Your task to perform on an android device: Open settings on Google Maps Image 0: 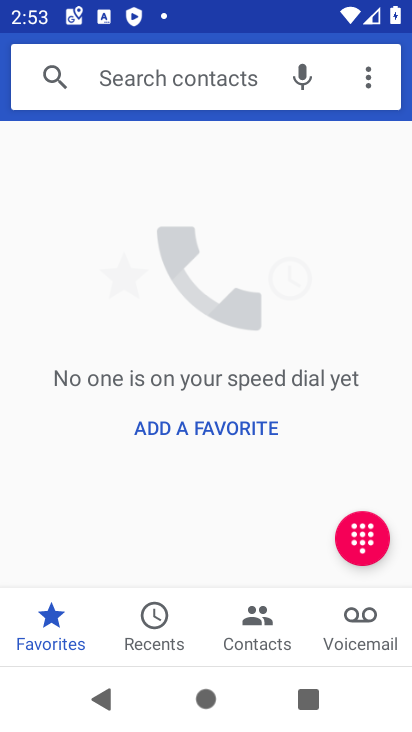
Step 0: press home button
Your task to perform on an android device: Open settings on Google Maps Image 1: 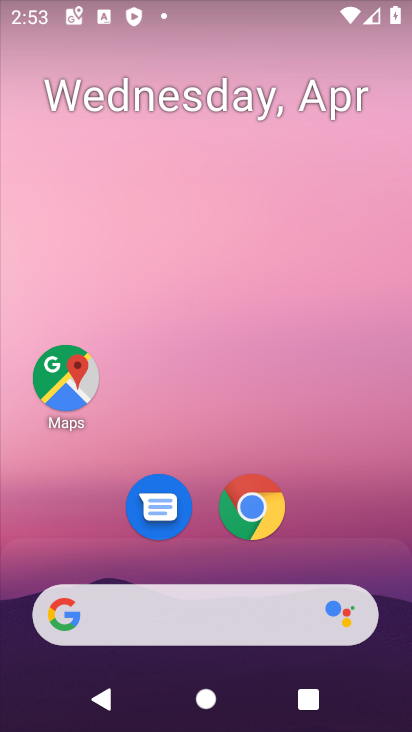
Step 1: click (68, 389)
Your task to perform on an android device: Open settings on Google Maps Image 2: 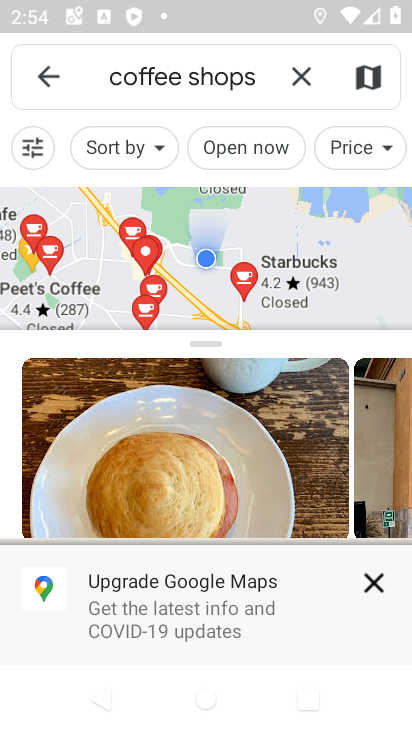
Step 2: click (45, 70)
Your task to perform on an android device: Open settings on Google Maps Image 3: 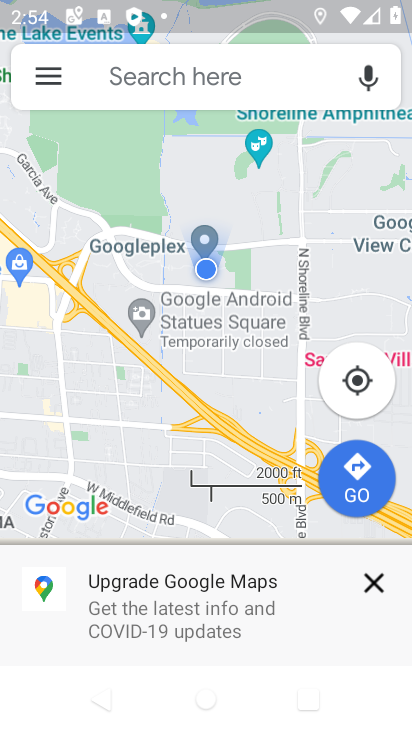
Step 3: click (44, 69)
Your task to perform on an android device: Open settings on Google Maps Image 4: 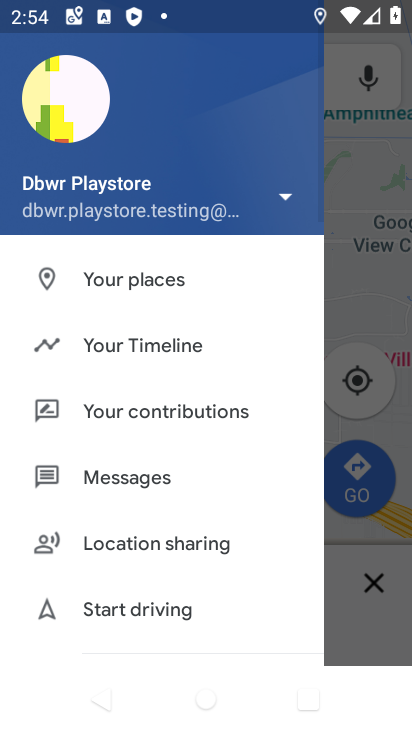
Step 4: drag from (206, 509) to (198, 139)
Your task to perform on an android device: Open settings on Google Maps Image 5: 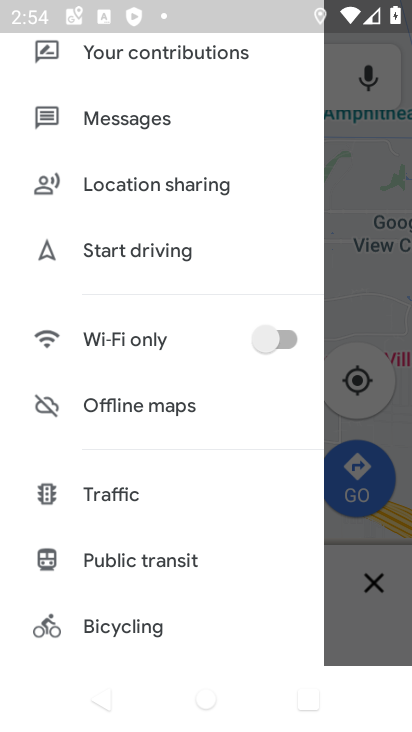
Step 5: drag from (210, 600) to (176, 208)
Your task to perform on an android device: Open settings on Google Maps Image 6: 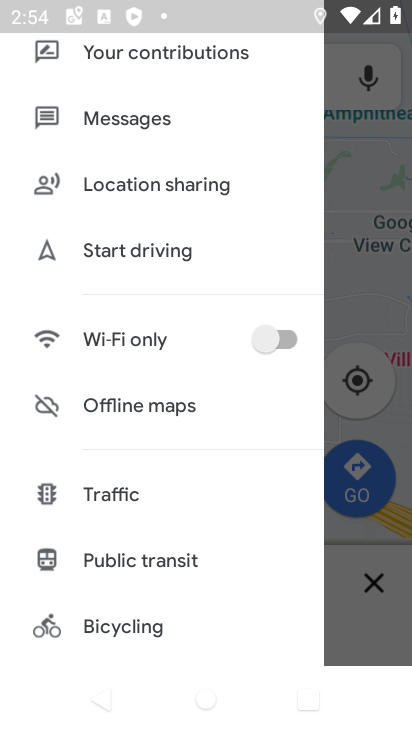
Step 6: drag from (167, 605) to (166, 138)
Your task to perform on an android device: Open settings on Google Maps Image 7: 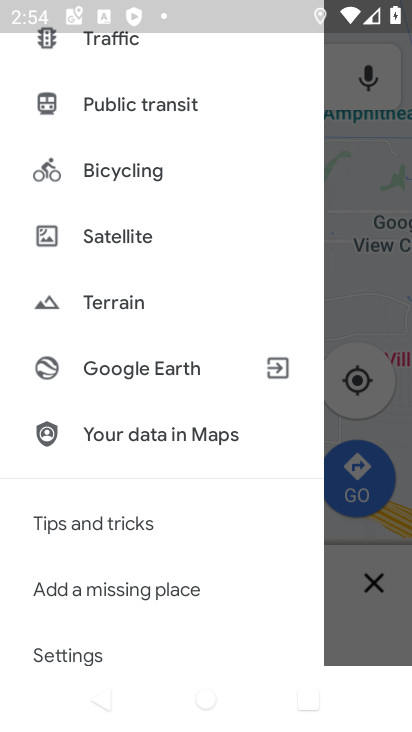
Step 7: click (88, 657)
Your task to perform on an android device: Open settings on Google Maps Image 8: 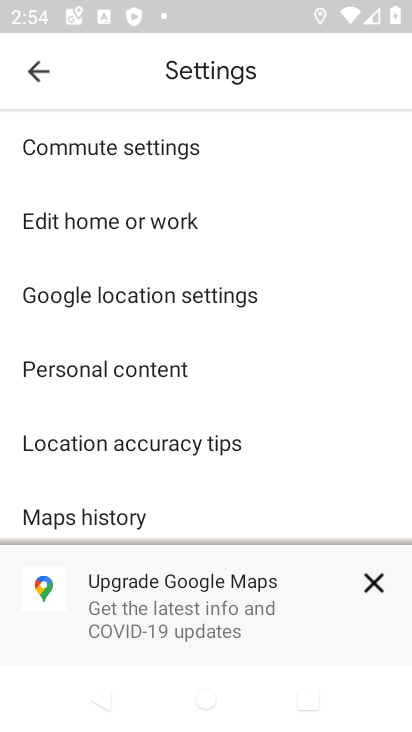
Step 8: task complete